Your task to perform on an android device: set default search engine in the chrome app Image 0: 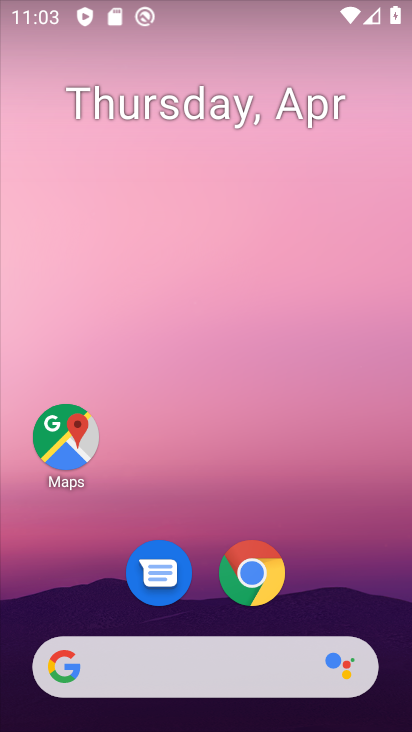
Step 0: click (250, 577)
Your task to perform on an android device: set default search engine in the chrome app Image 1: 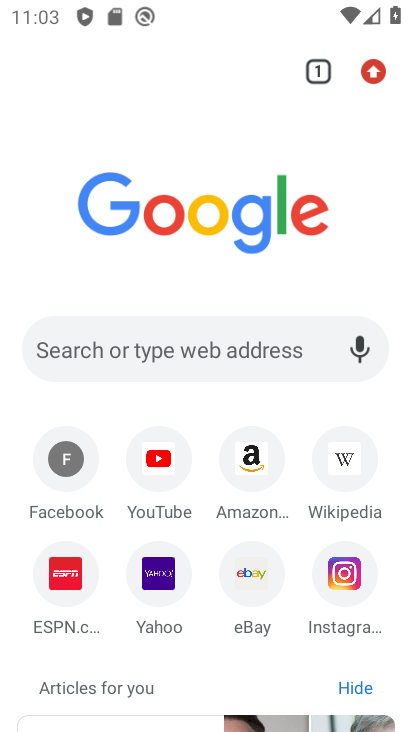
Step 1: click (378, 64)
Your task to perform on an android device: set default search engine in the chrome app Image 2: 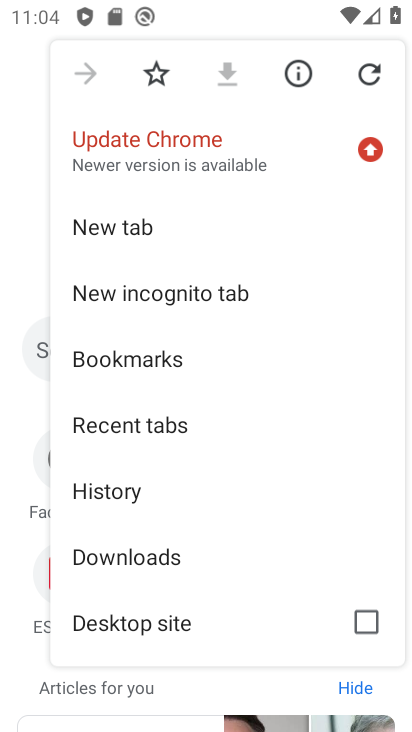
Step 2: drag from (202, 575) to (198, 157)
Your task to perform on an android device: set default search engine in the chrome app Image 3: 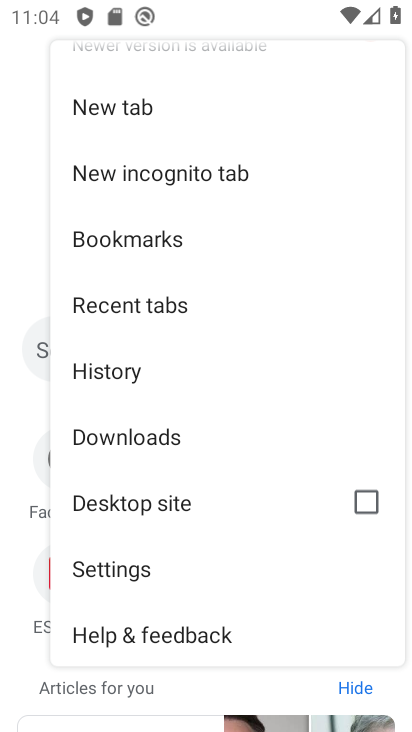
Step 3: click (131, 570)
Your task to perform on an android device: set default search engine in the chrome app Image 4: 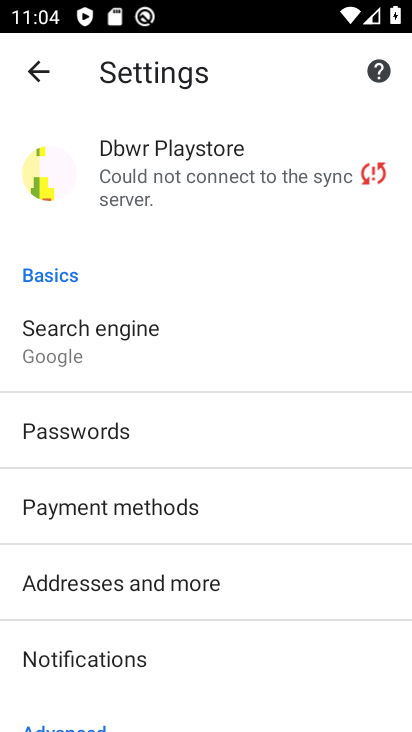
Step 4: click (109, 348)
Your task to perform on an android device: set default search engine in the chrome app Image 5: 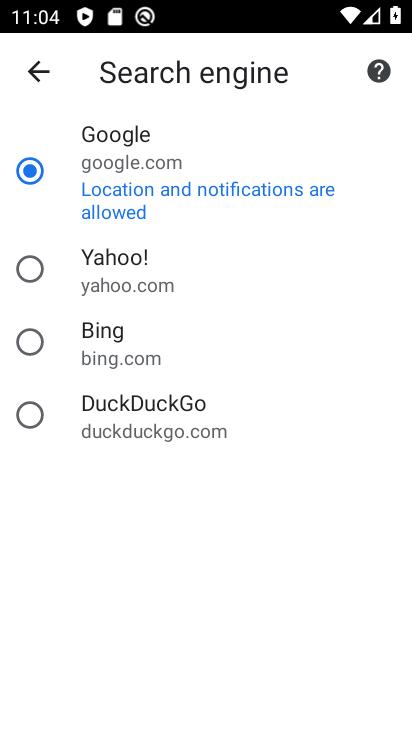
Step 5: task complete